Your task to perform on an android device: search for starred emails in the gmail app Image 0: 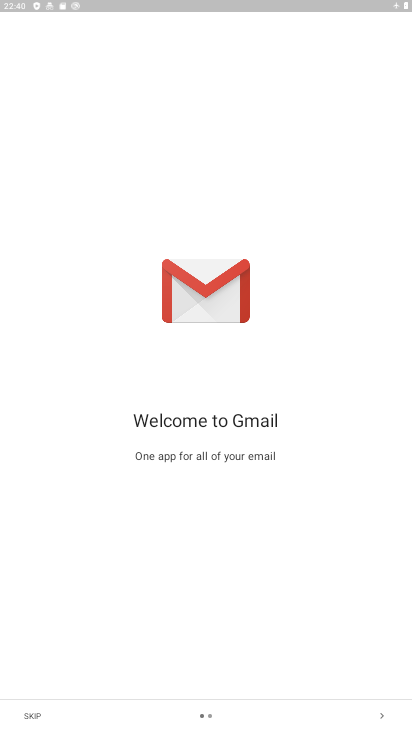
Step 0: click (380, 710)
Your task to perform on an android device: search for starred emails in the gmail app Image 1: 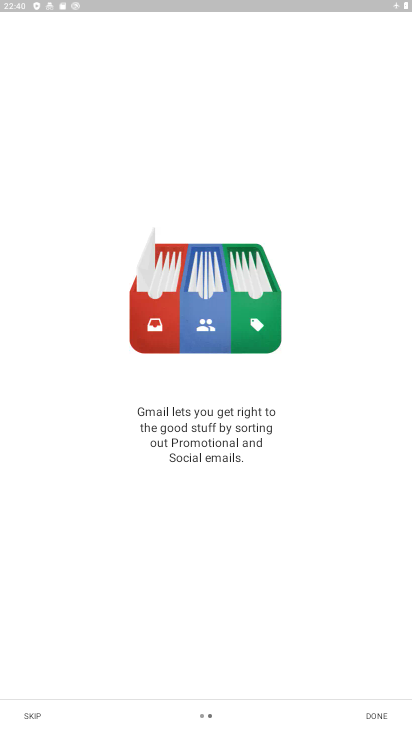
Step 1: press back button
Your task to perform on an android device: search for starred emails in the gmail app Image 2: 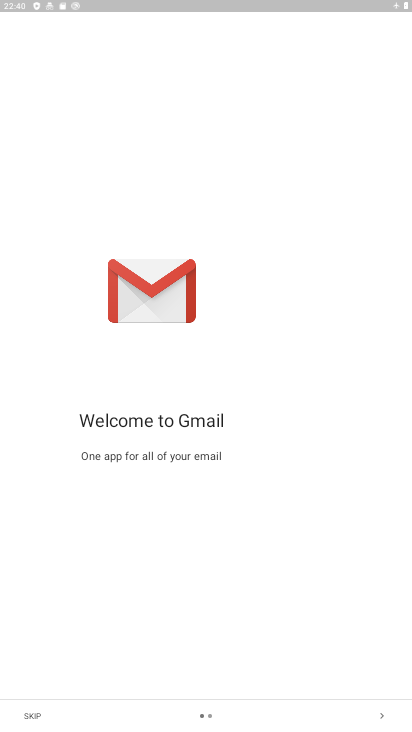
Step 2: press back button
Your task to perform on an android device: search for starred emails in the gmail app Image 3: 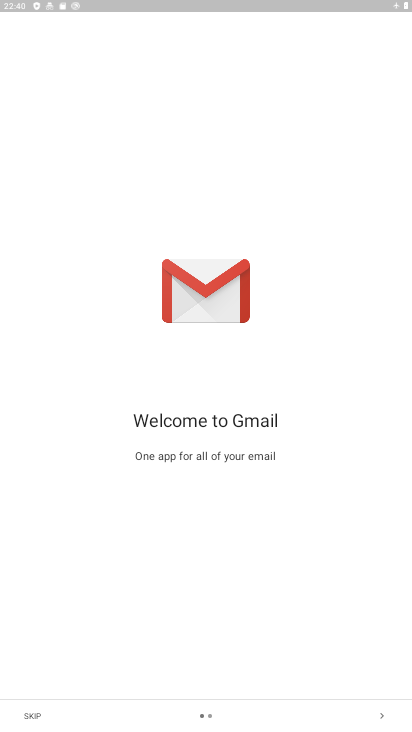
Step 3: press back button
Your task to perform on an android device: search for starred emails in the gmail app Image 4: 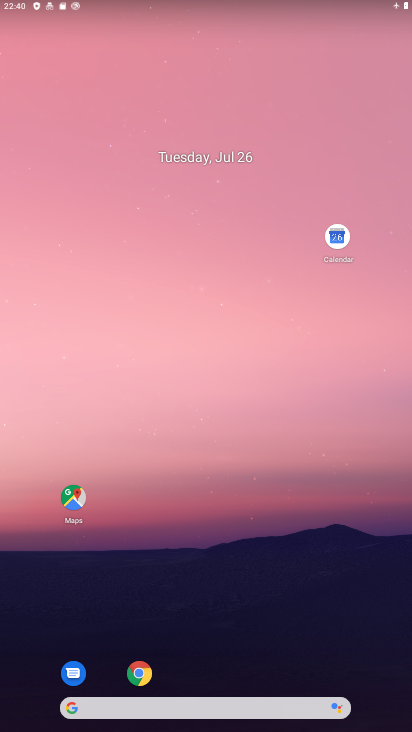
Step 4: drag from (237, 498) to (144, 119)
Your task to perform on an android device: search for starred emails in the gmail app Image 5: 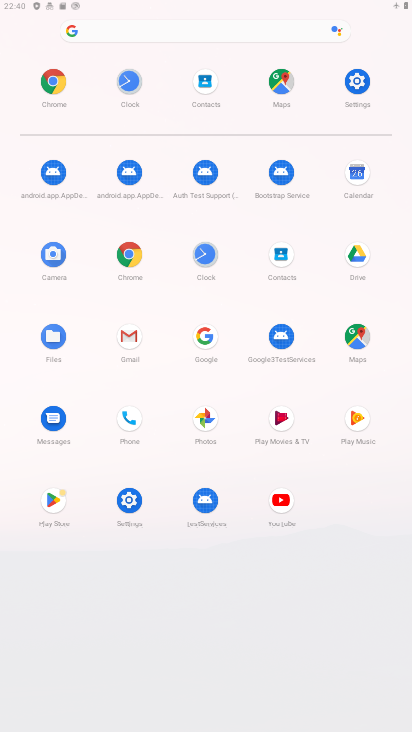
Step 5: drag from (210, 446) to (157, 210)
Your task to perform on an android device: search for starred emails in the gmail app Image 6: 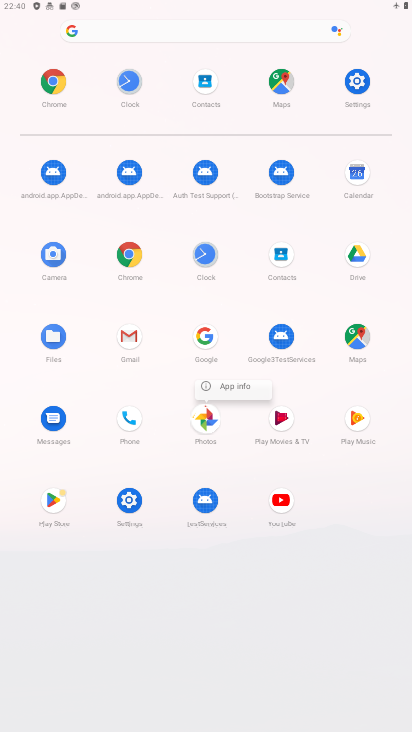
Step 6: drag from (163, 289) to (116, 135)
Your task to perform on an android device: search for starred emails in the gmail app Image 7: 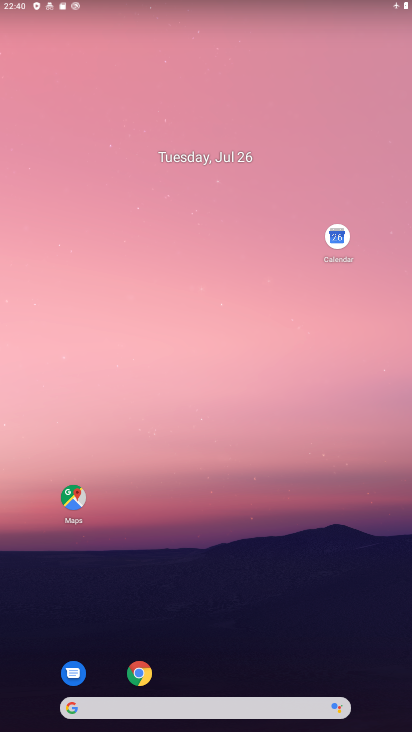
Step 7: drag from (260, 525) to (202, 148)
Your task to perform on an android device: search for starred emails in the gmail app Image 8: 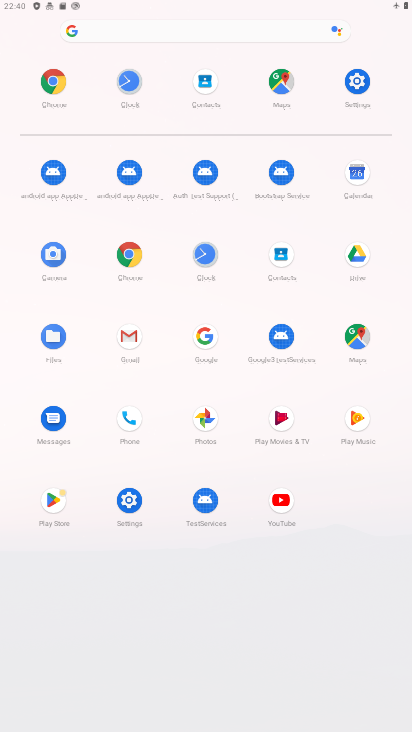
Step 8: drag from (83, 3) to (160, 0)
Your task to perform on an android device: search for starred emails in the gmail app Image 9: 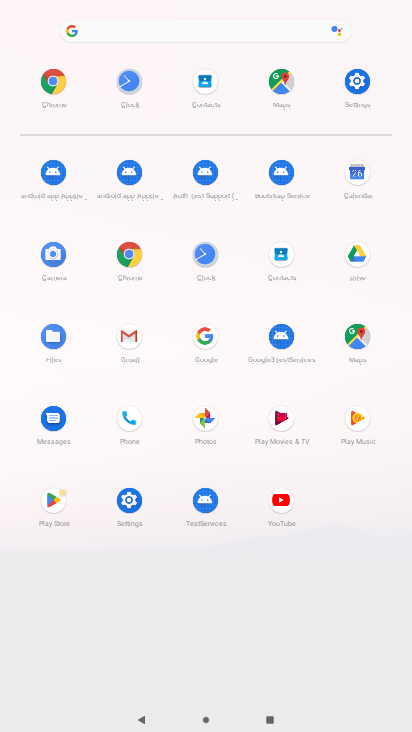
Step 9: click (174, 16)
Your task to perform on an android device: search for starred emails in the gmail app Image 10: 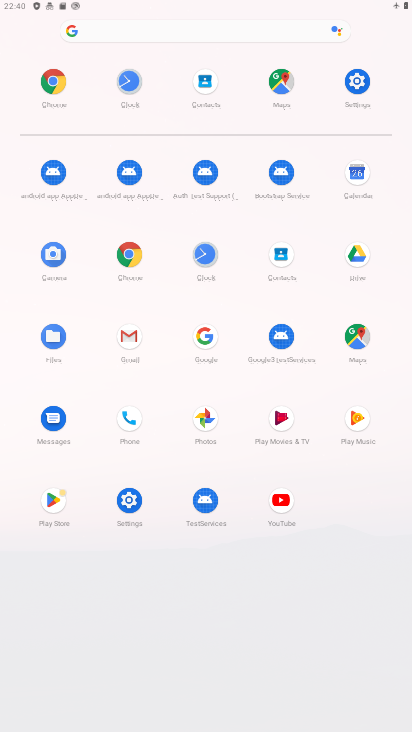
Step 10: click (125, 326)
Your task to perform on an android device: search for starred emails in the gmail app Image 11: 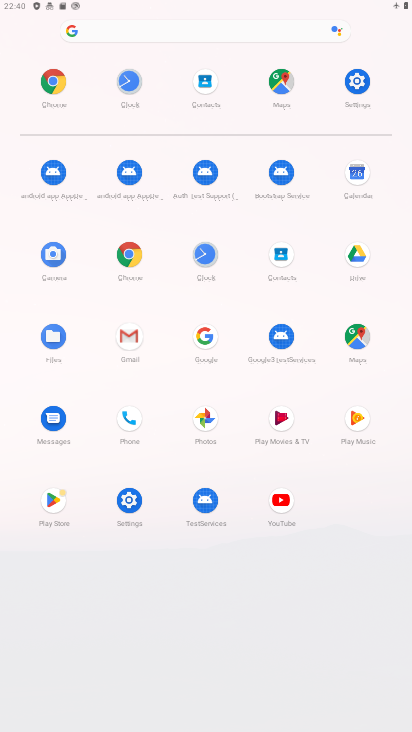
Step 11: click (127, 328)
Your task to perform on an android device: search for starred emails in the gmail app Image 12: 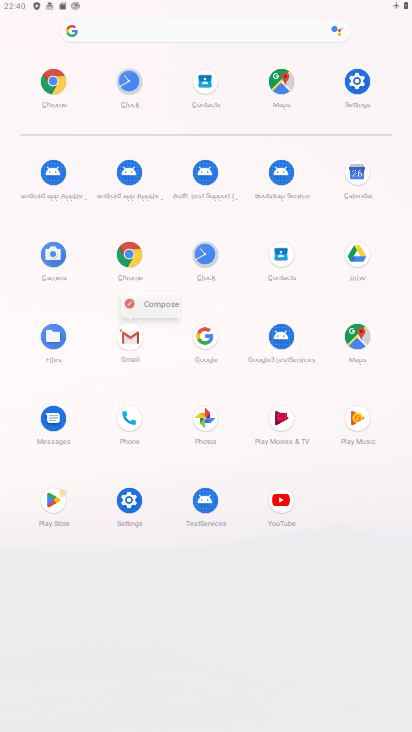
Step 12: click (127, 328)
Your task to perform on an android device: search for starred emails in the gmail app Image 13: 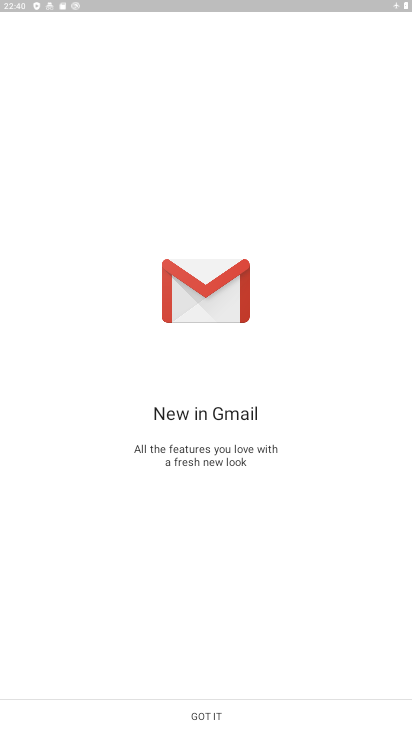
Step 13: click (230, 705)
Your task to perform on an android device: search for starred emails in the gmail app Image 14: 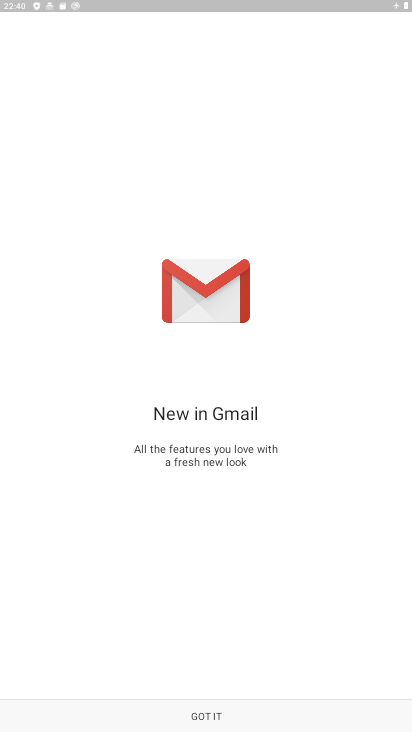
Step 14: click (236, 712)
Your task to perform on an android device: search for starred emails in the gmail app Image 15: 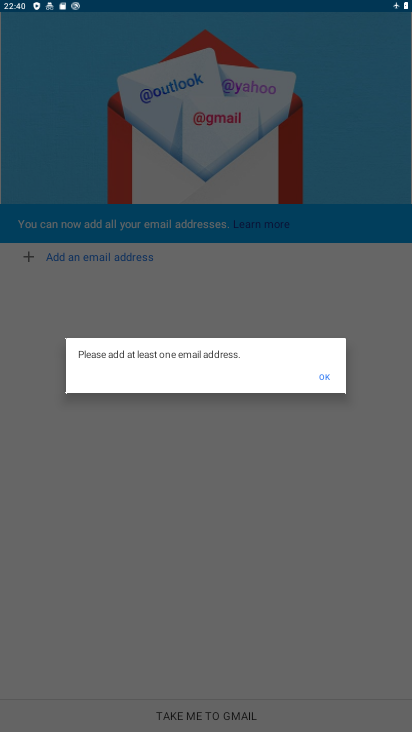
Step 15: click (322, 369)
Your task to perform on an android device: search for starred emails in the gmail app Image 16: 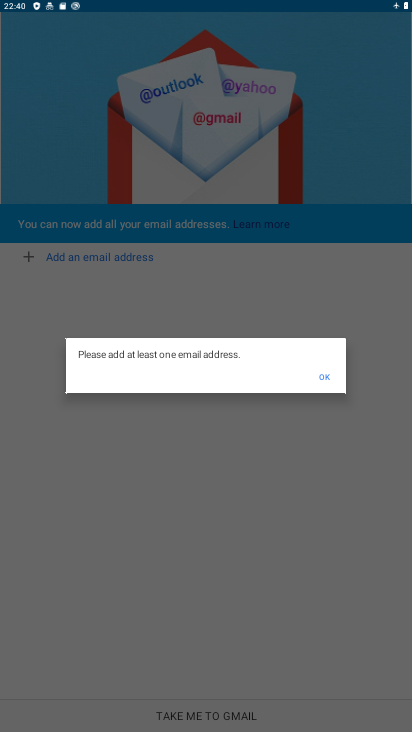
Step 16: click (322, 369)
Your task to perform on an android device: search for starred emails in the gmail app Image 17: 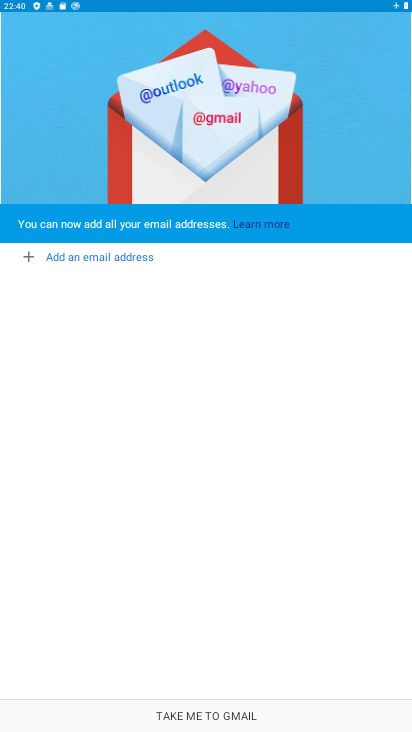
Step 17: click (208, 718)
Your task to perform on an android device: search for starred emails in the gmail app Image 18: 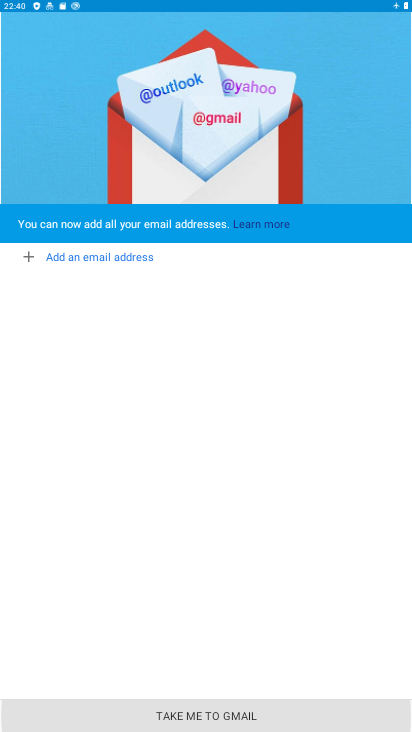
Step 18: click (208, 716)
Your task to perform on an android device: search for starred emails in the gmail app Image 19: 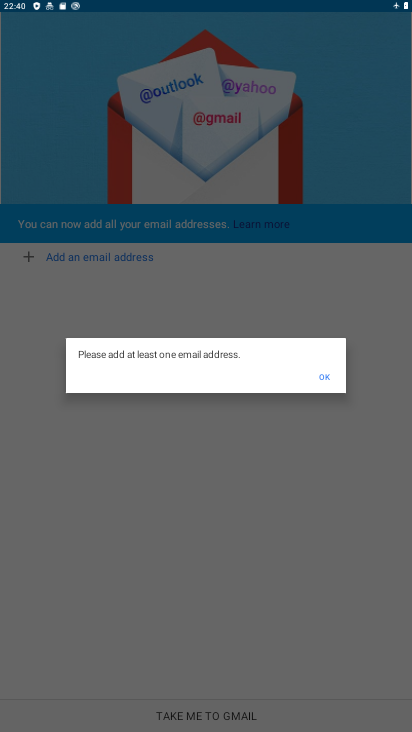
Step 19: click (208, 716)
Your task to perform on an android device: search for starred emails in the gmail app Image 20: 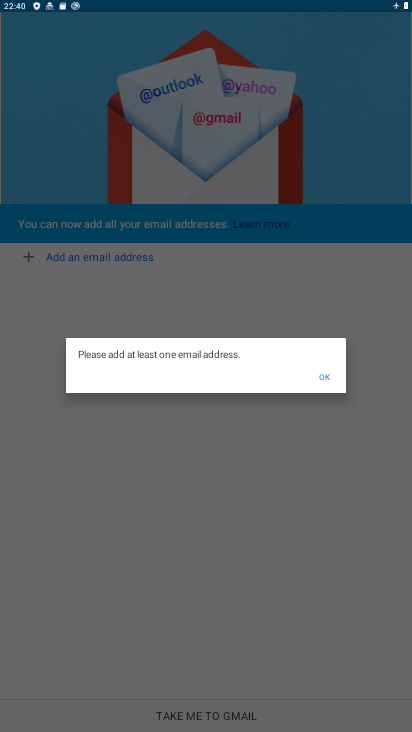
Step 20: click (211, 717)
Your task to perform on an android device: search for starred emails in the gmail app Image 21: 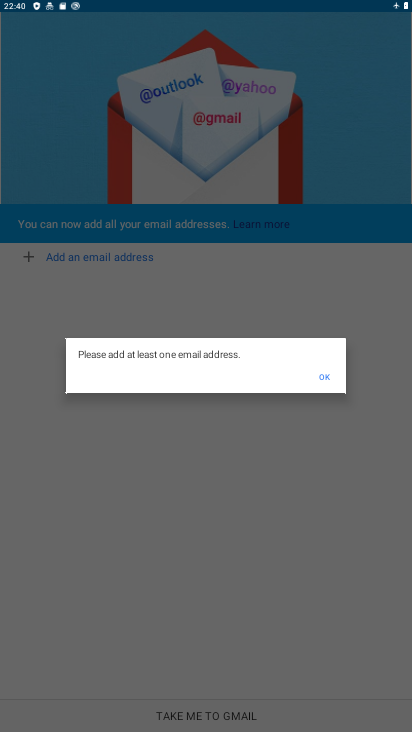
Step 21: task complete